Your task to perform on an android device: set the timer Image 0: 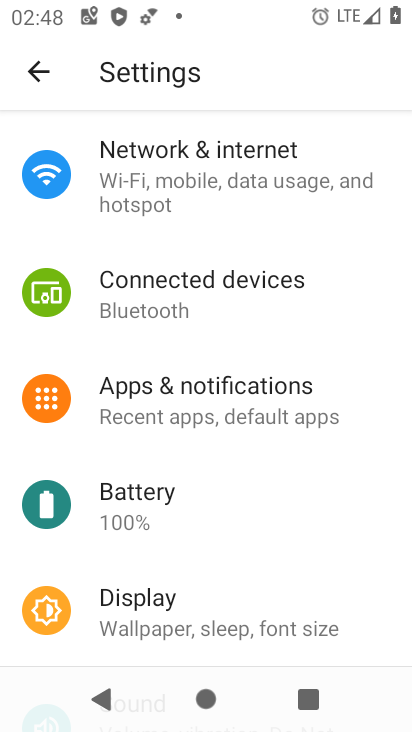
Step 0: press home button
Your task to perform on an android device: set the timer Image 1: 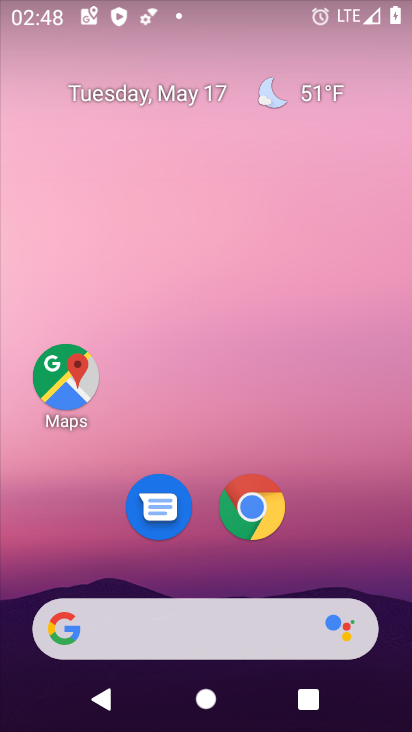
Step 1: drag from (326, 544) to (291, 140)
Your task to perform on an android device: set the timer Image 2: 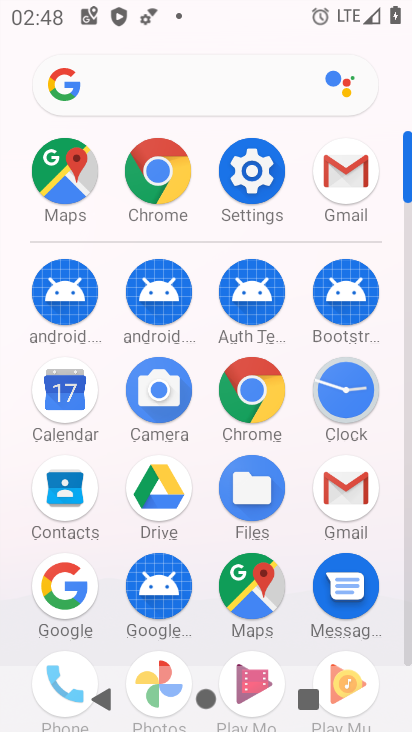
Step 2: click (345, 392)
Your task to perform on an android device: set the timer Image 3: 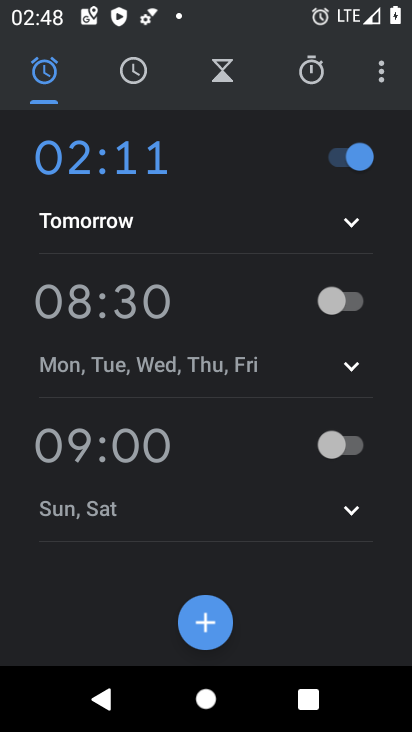
Step 3: click (225, 78)
Your task to perform on an android device: set the timer Image 4: 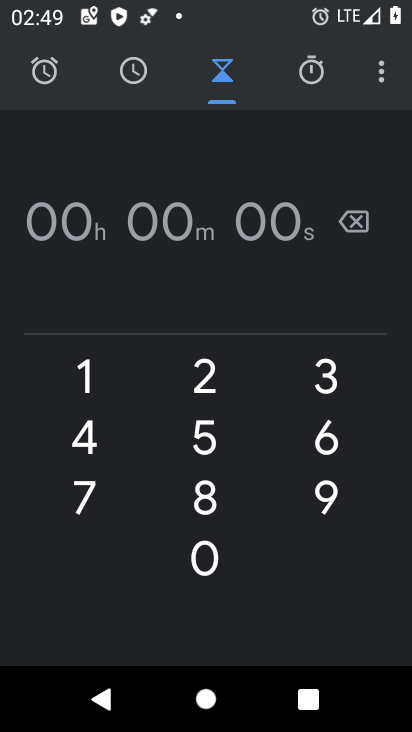
Step 4: click (96, 391)
Your task to perform on an android device: set the timer Image 5: 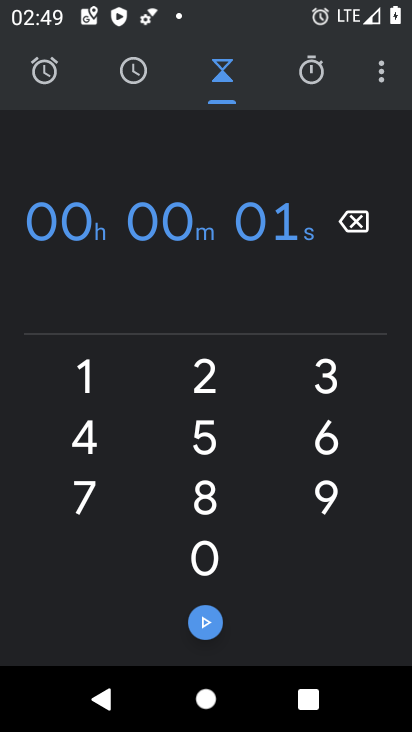
Step 5: click (88, 420)
Your task to perform on an android device: set the timer Image 6: 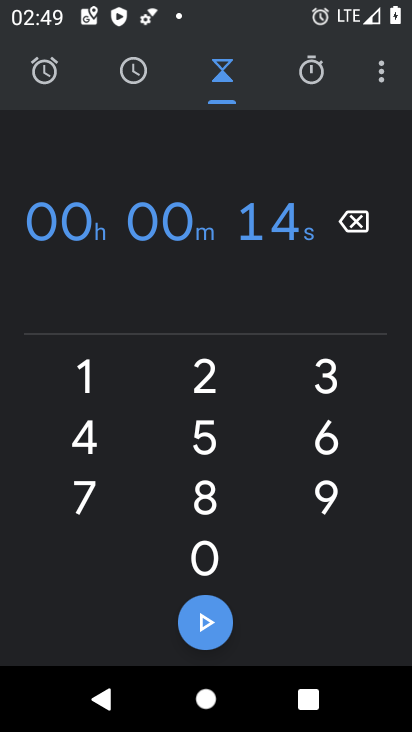
Step 6: click (90, 400)
Your task to perform on an android device: set the timer Image 7: 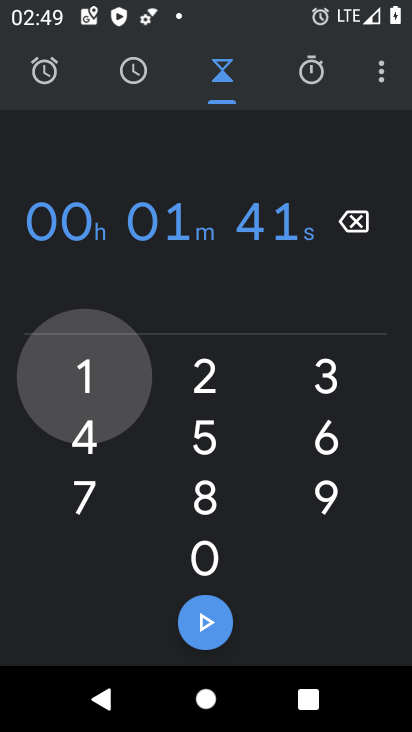
Step 7: click (90, 400)
Your task to perform on an android device: set the timer Image 8: 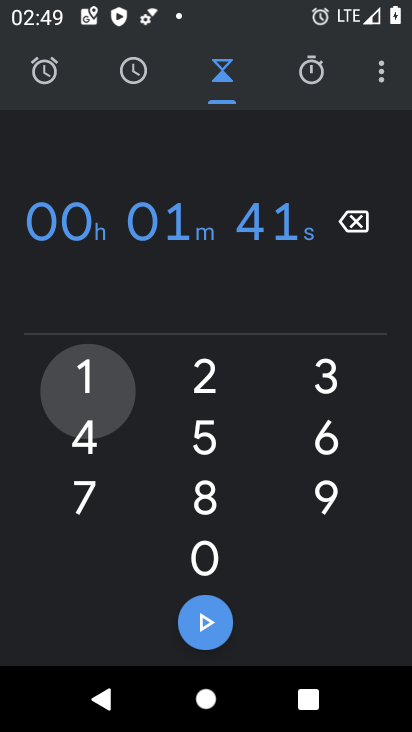
Step 8: click (91, 400)
Your task to perform on an android device: set the timer Image 9: 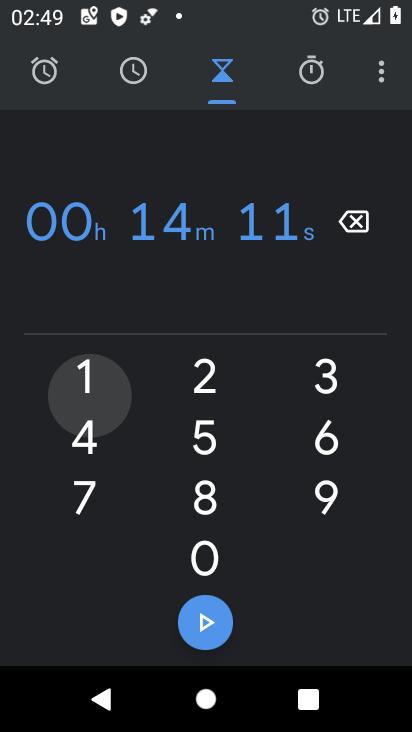
Step 9: click (91, 400)
Your task to perform on an android device: set the timer Image 10: 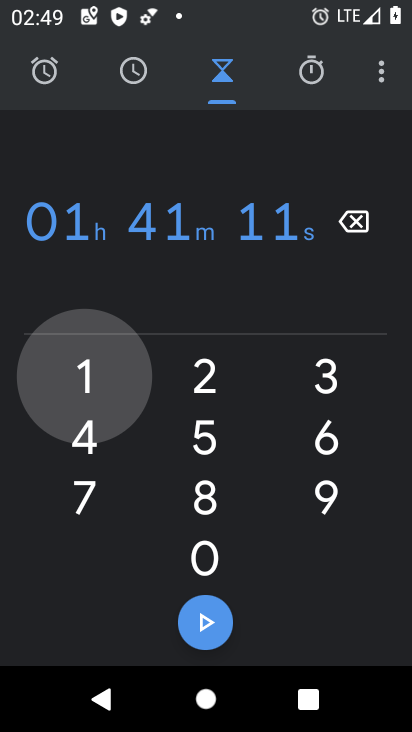
Step 10: click (91, 400)
Your task to perform on an android device: set the timer Image 11: 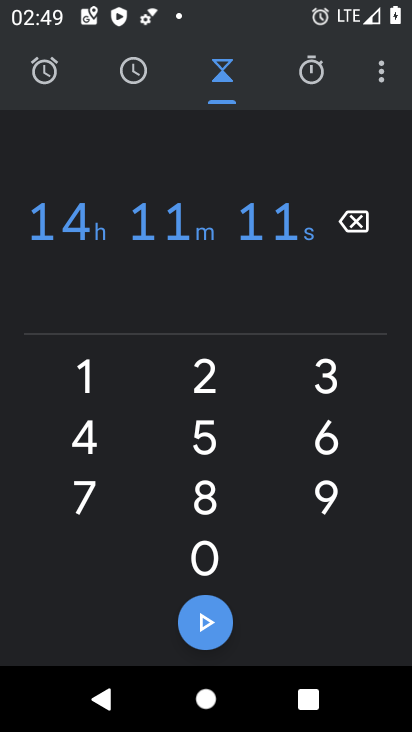
Step 11: click (192, 619)
Your task to perform on an android device: set the timer Image 12: 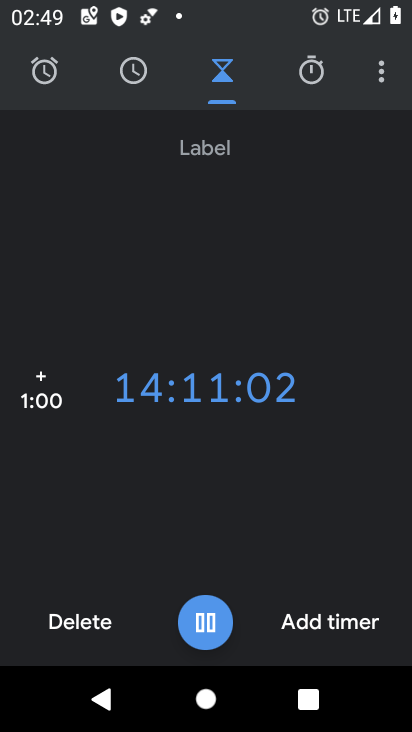
Step 12: task complete